Your task to perform on an android device: search for starred emails in the gmail app Image 0: 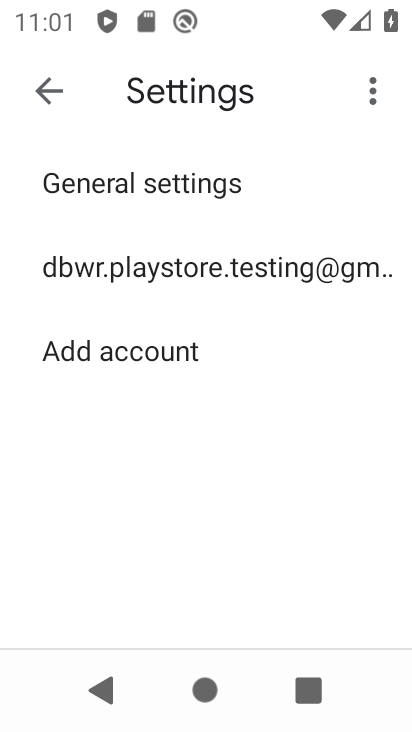
Step 0: press home button
Your task to perform on an android device: search for starred emails in the gmail app Image 1: 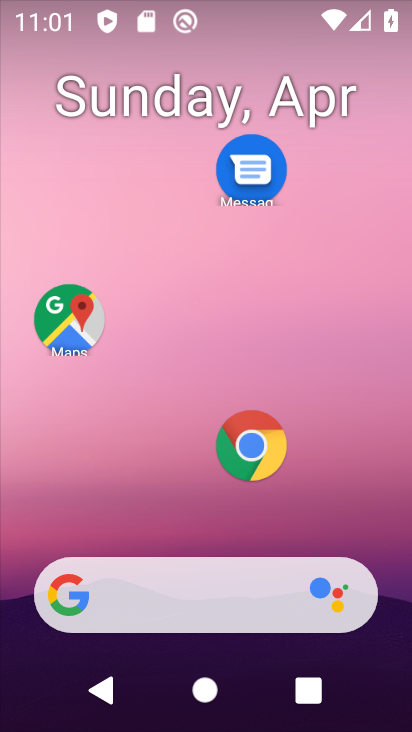
Step 1: drag from (117, 620) to (263, 211)
Your task to perform on an android device: search for starred emails in the gmail app Image 2: 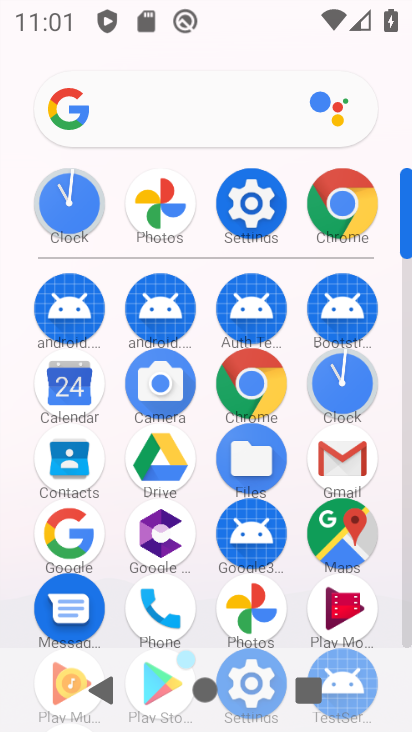
Step 2: click (335, 448)
Your task to perform on an android device: search for starred emails in the gmail app Image 3: 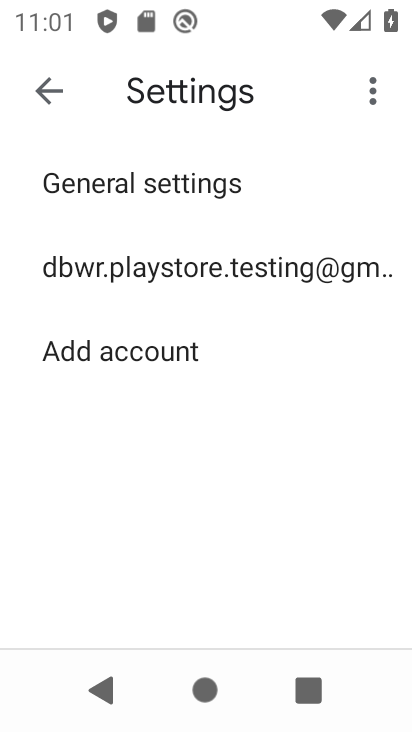
Step 3: click (45, 86)
Your task to perform on an android device: search for starred emails in the gmail app Image 4: 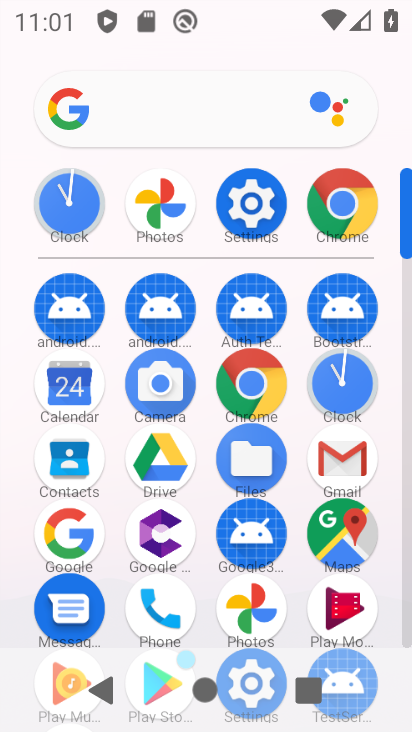
Step 4: click (347, 449)
Your task to perform on an android device: search for starred emails in the gmail app Image 5: 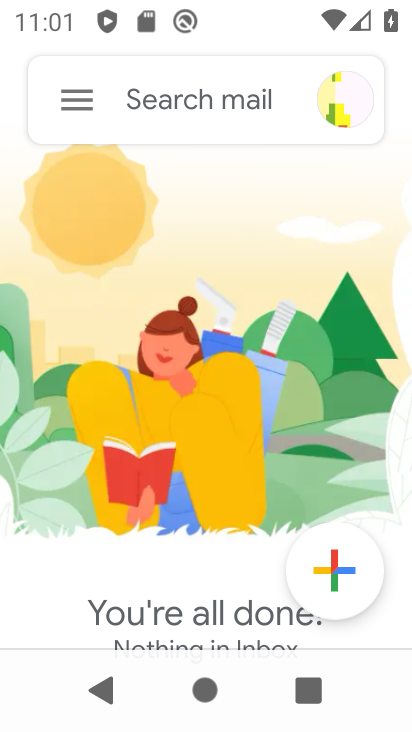
Step 5: click (67, 101)
Your task to perform on an android device: search for starred emails in the gmail app Image 6: 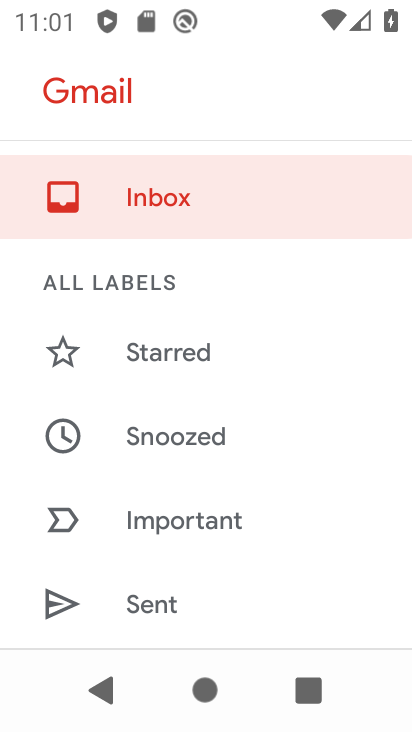
Step 6: click (175, 356)
Your task to perform on an android device: search for starred emails in the gmail app Image 7: 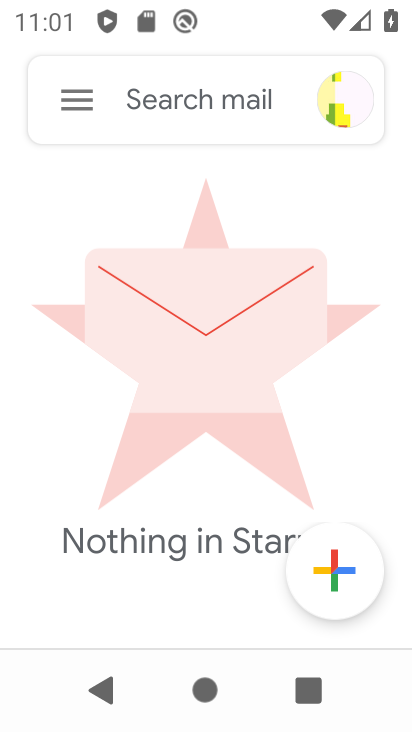
Step 7: task complete